Your task to perform on an android device: Clear the shopping cart on target.com. Add "acer nitro" to the cart on target.com, then select checkout. Image 0: 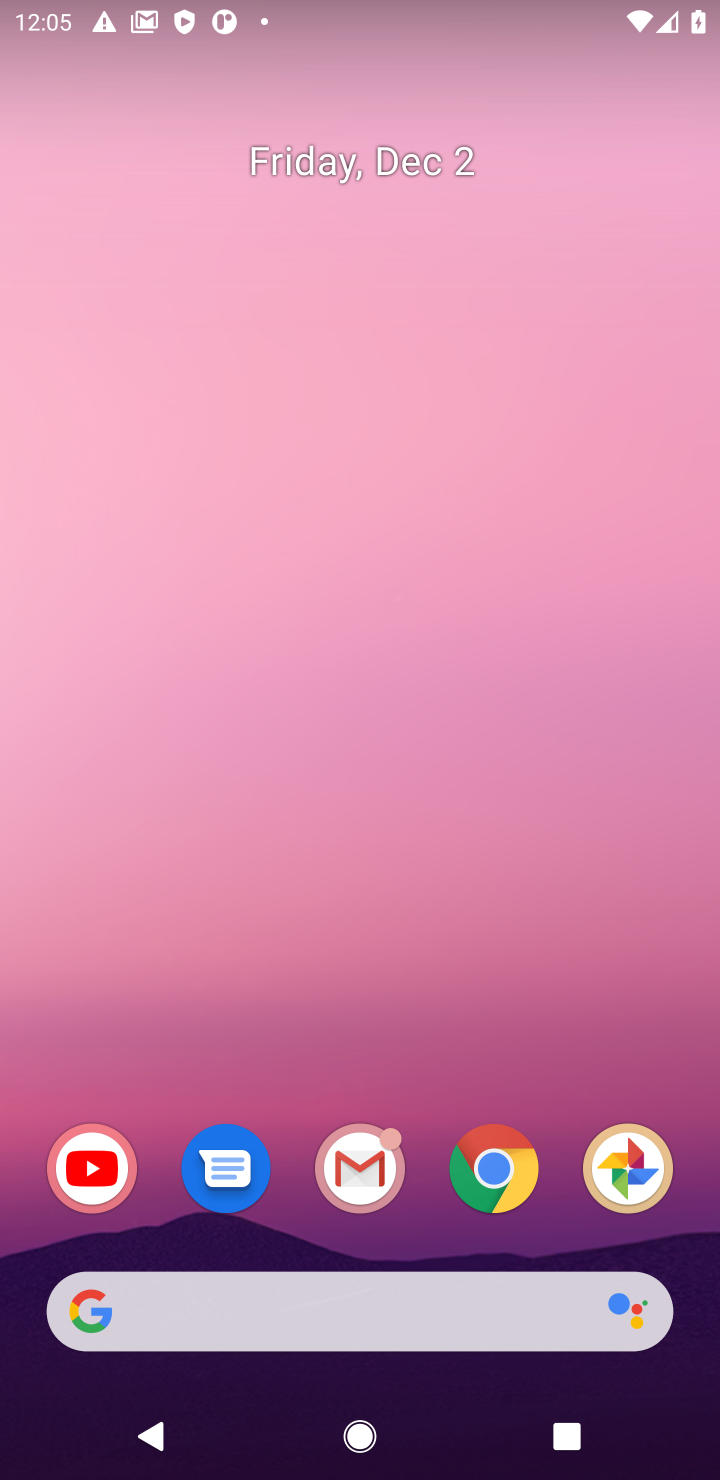
Step 0: click (525, 1176)
Your task to perform on an android device: Clear the shopping cart on target.com. Add "acer nitro" to the cart on target.com, then select checkout. Image 1: 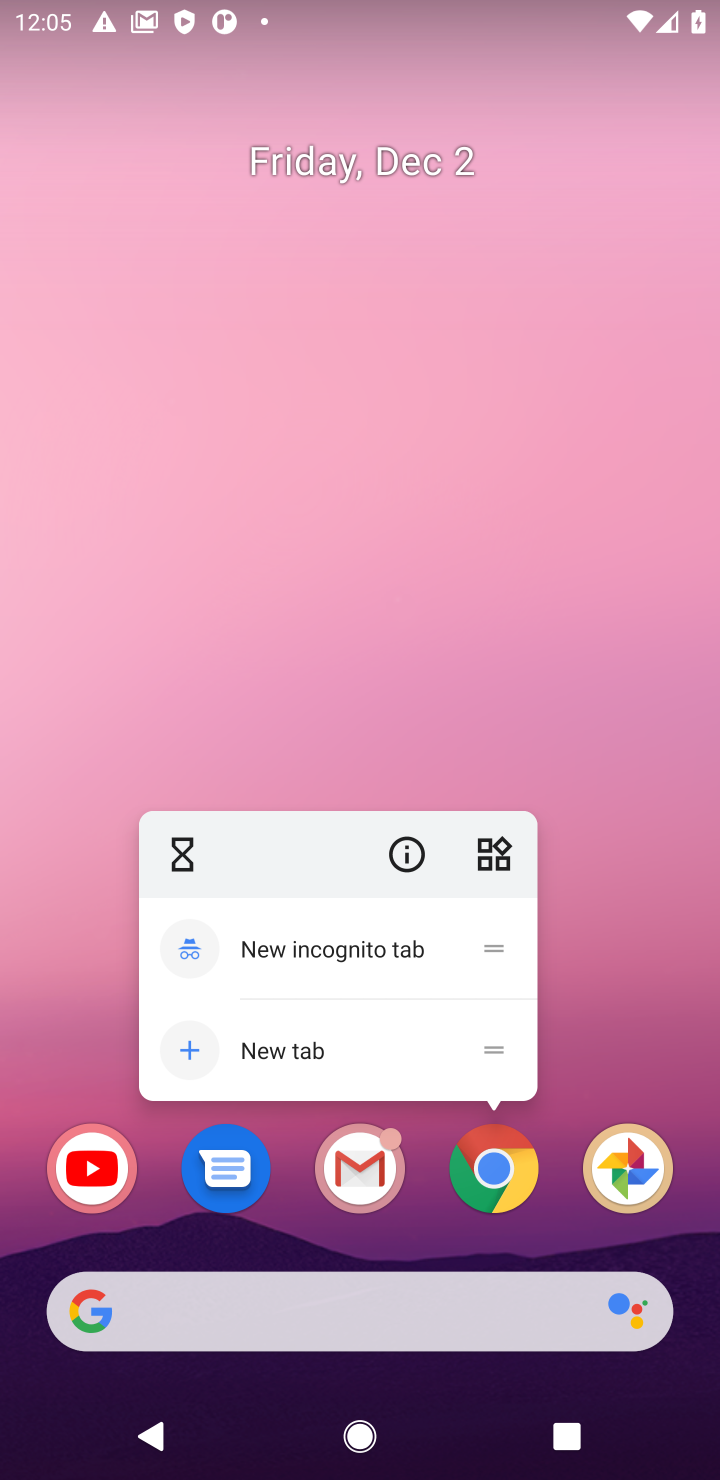
Step 1: click (495, 1169)
Your task to perform on an android device: Clear the shopping cart on target.com. Add "acer nitro" to the cart on target.com, then select checkout. Image 2: 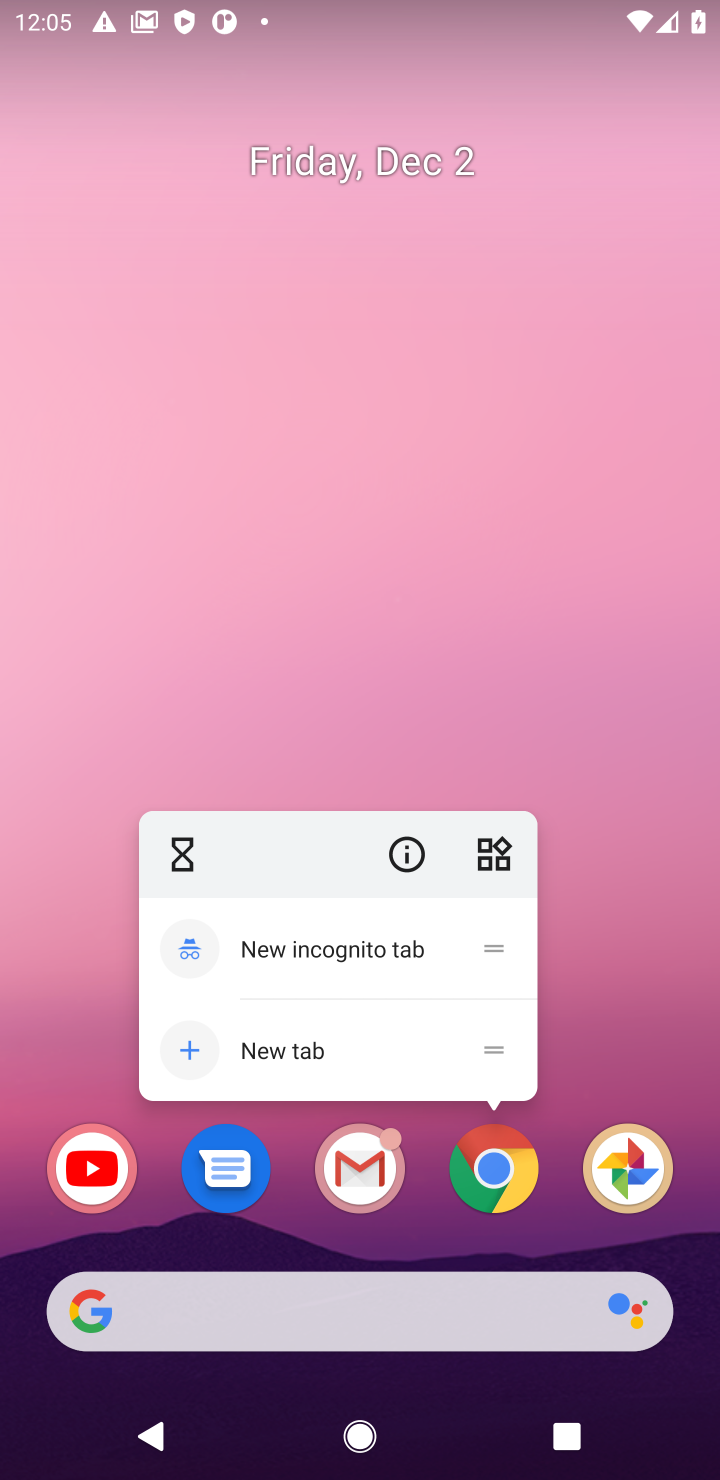
Step 2: click (495, 1169)
Your task to perform on an android device: Clear the shopping cart on target.com. Add "acer nitro" to the cart on target.com, then select checkout. Image 3: 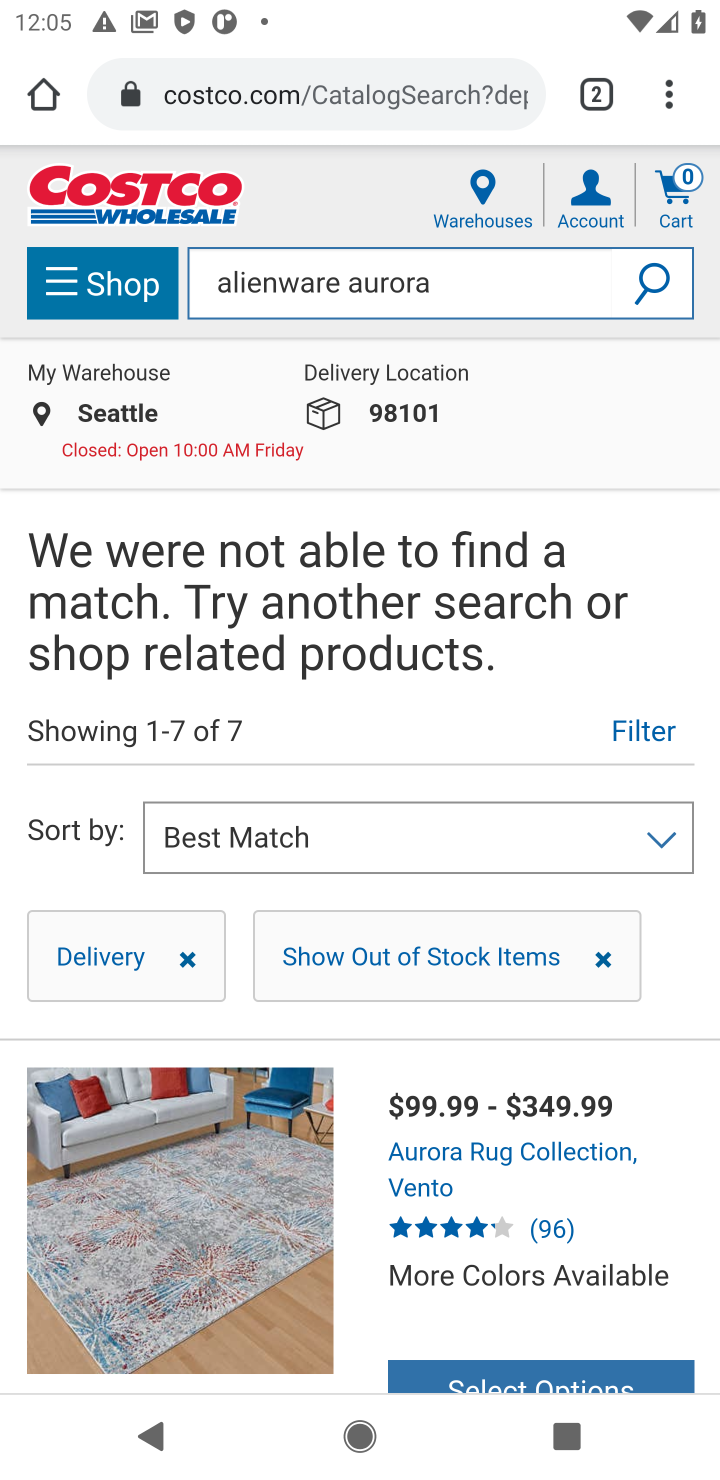
Step 3: click (333, 87)
Your task to perform on an android device: Clear the shopping cart on target.com. Add "acer nitro" to the cart on target.com, then select checkout. Image 4: 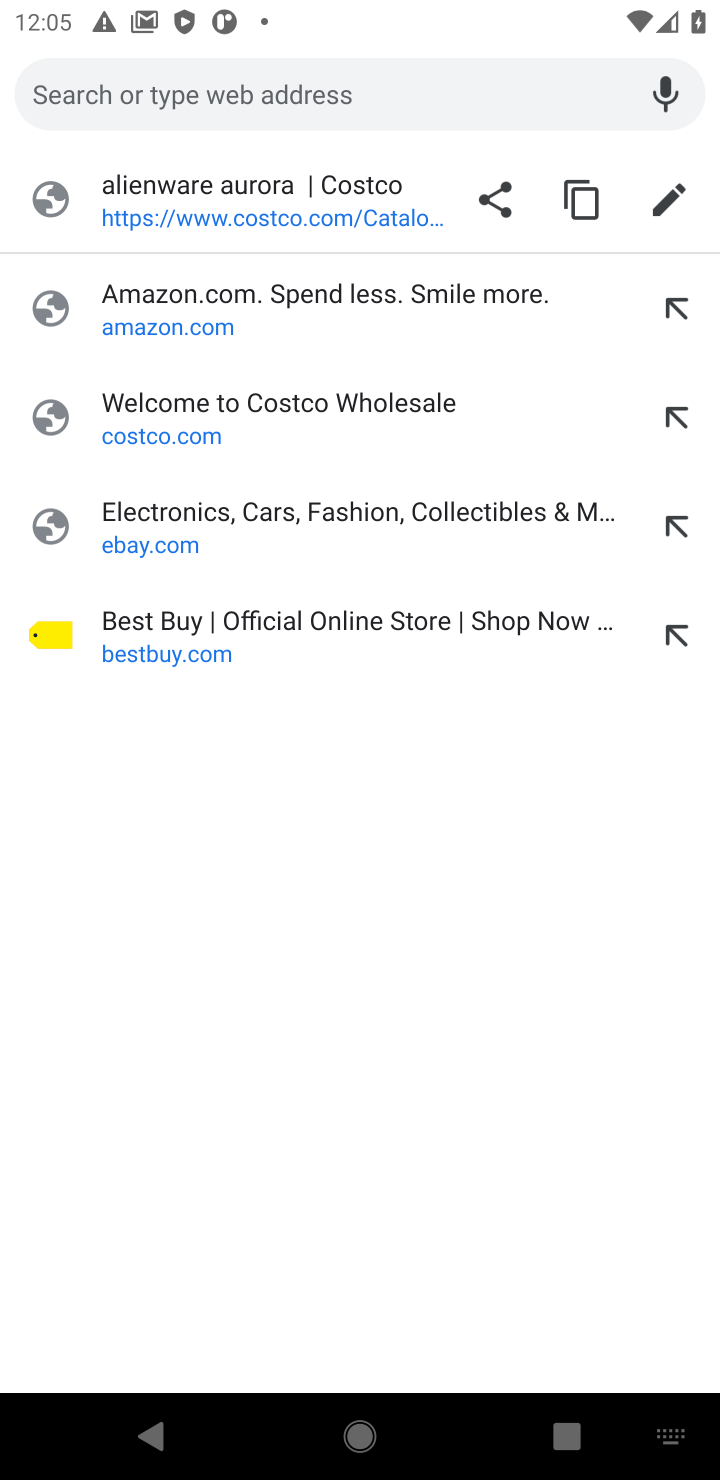
Step 4: type "target.com"
Your task to perform on an android device: Clear the shopping cart on target.com. Add "acer nitro" to the cart on target.com, then select checkout. Image 5: 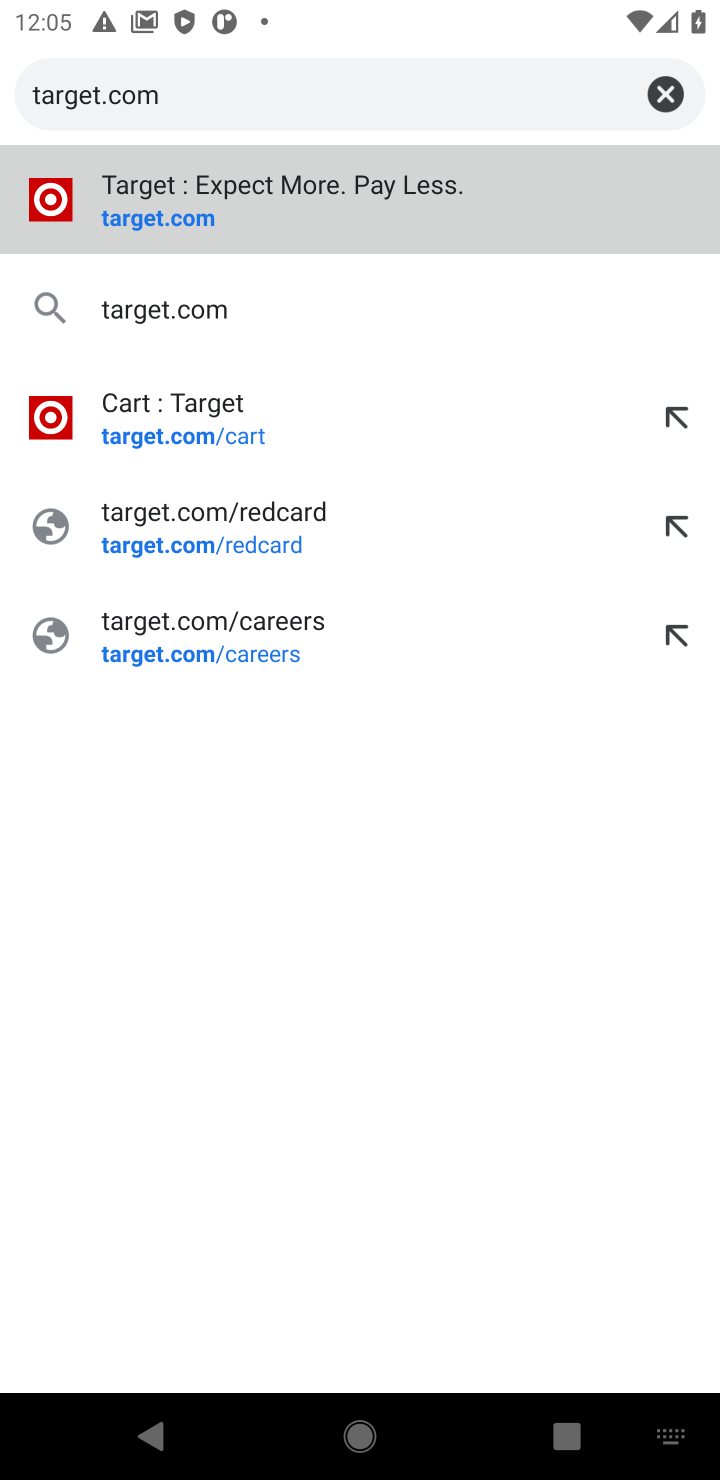
Step 5: click (151, 231)
Your task to perform on an android device: Clear the shopping cart on target.com. Add "acer nitro" to the cart on target.com, then select checkout. Image 6: 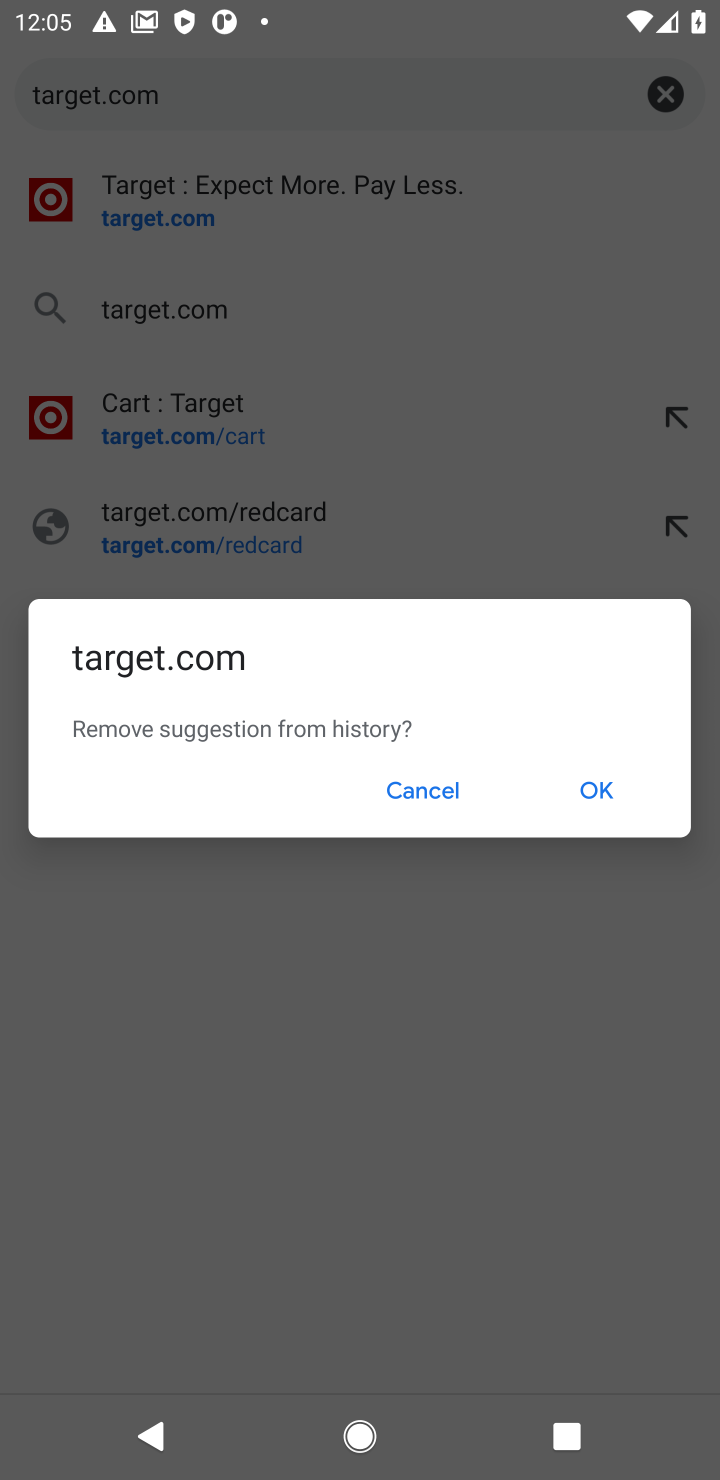
Step 6: click (401, 795)
Your task to perform on an android device: Clear the shopping cart on target.com. Add "acer nitro" to the cart on target.com, then select checkout. Image 7: 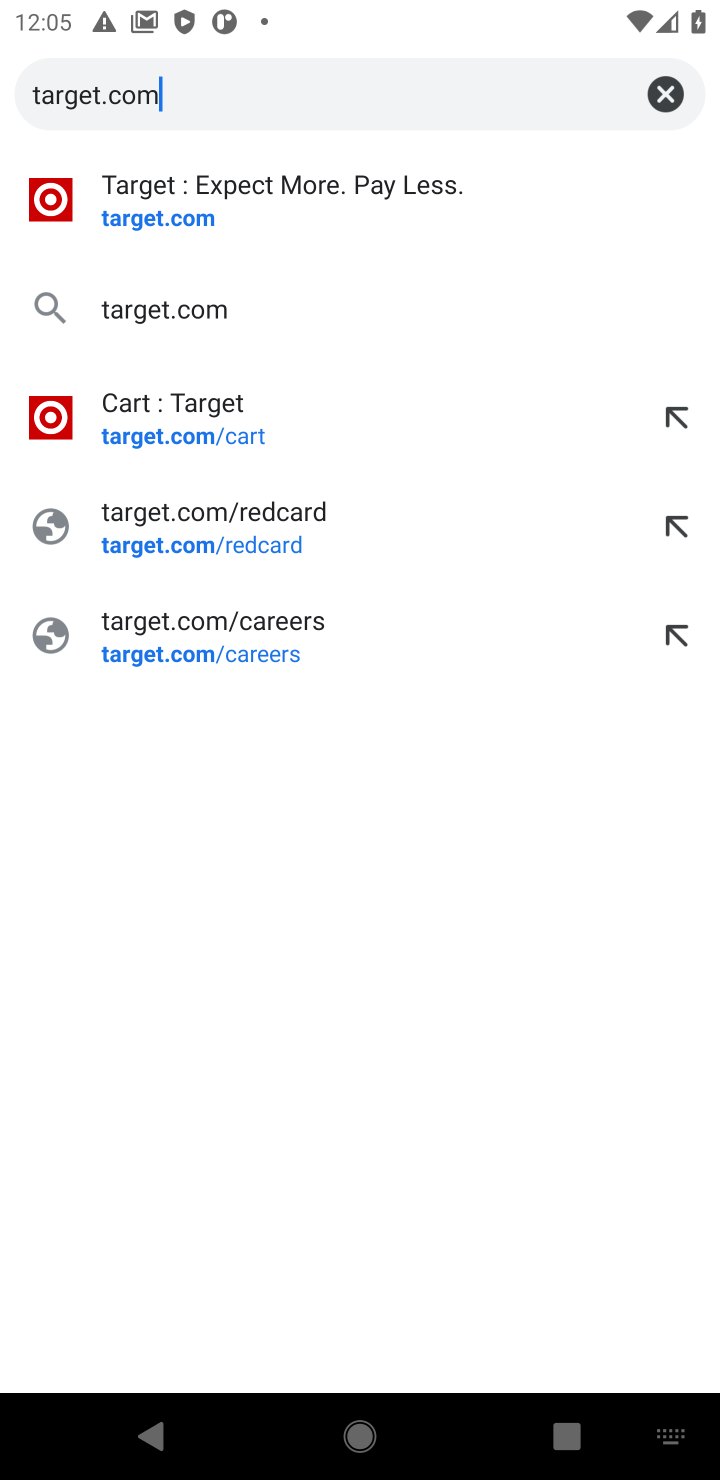
Step 7: click (171, 227)
Your task to perform on an android device: Clear the shopping cart on target.com. Add "acer nitro" to the cart on target.com, then select checkout. Image 8: 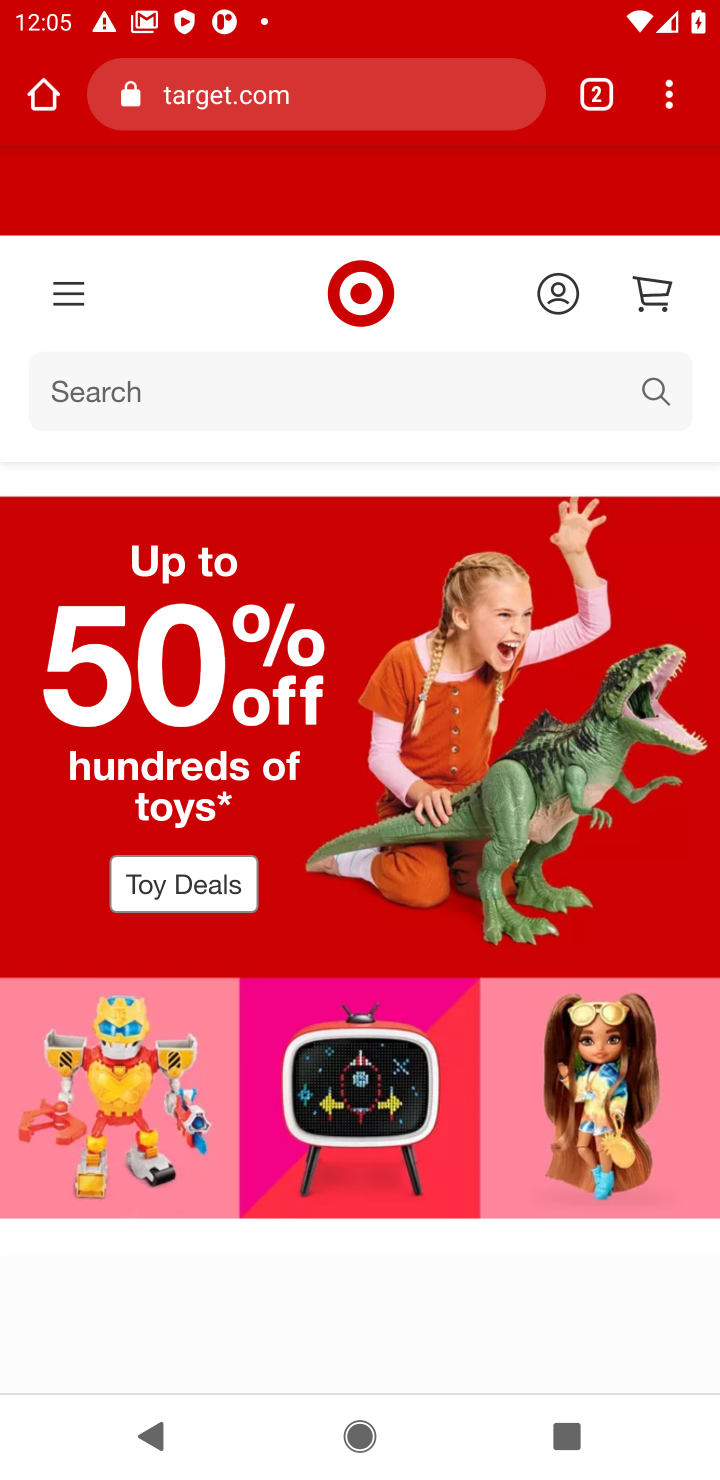
Step 8: click (654, 297)
Your task to perform on an android device: Clear the shopping cart on target.com. Add "acer nitro" to the cart on target.com, then select checkout. Image 9: 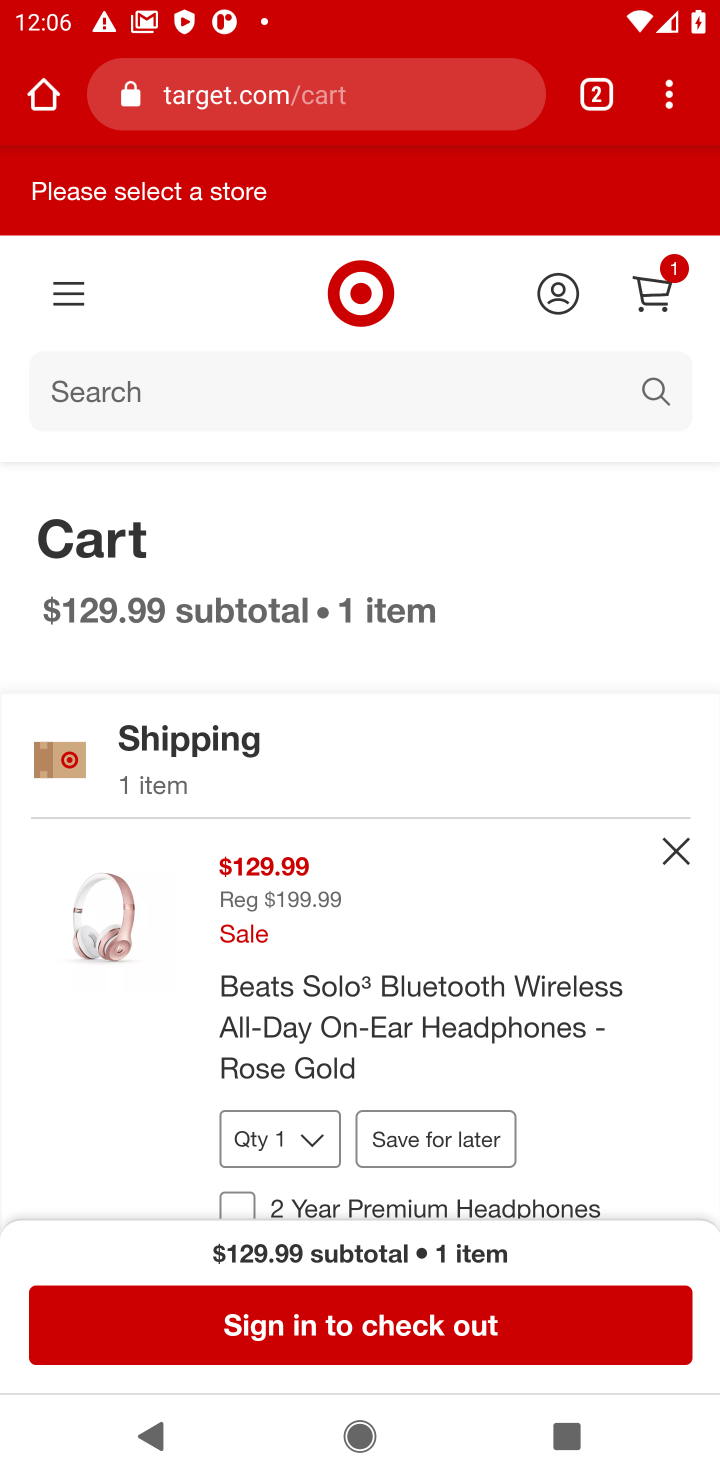
Step 9: click (681, 860)
Your task to perform on an android device: Clear the shopping cart on target.com. Add "acer nitro" to the cart on target.com, then select checkout. Image 10: 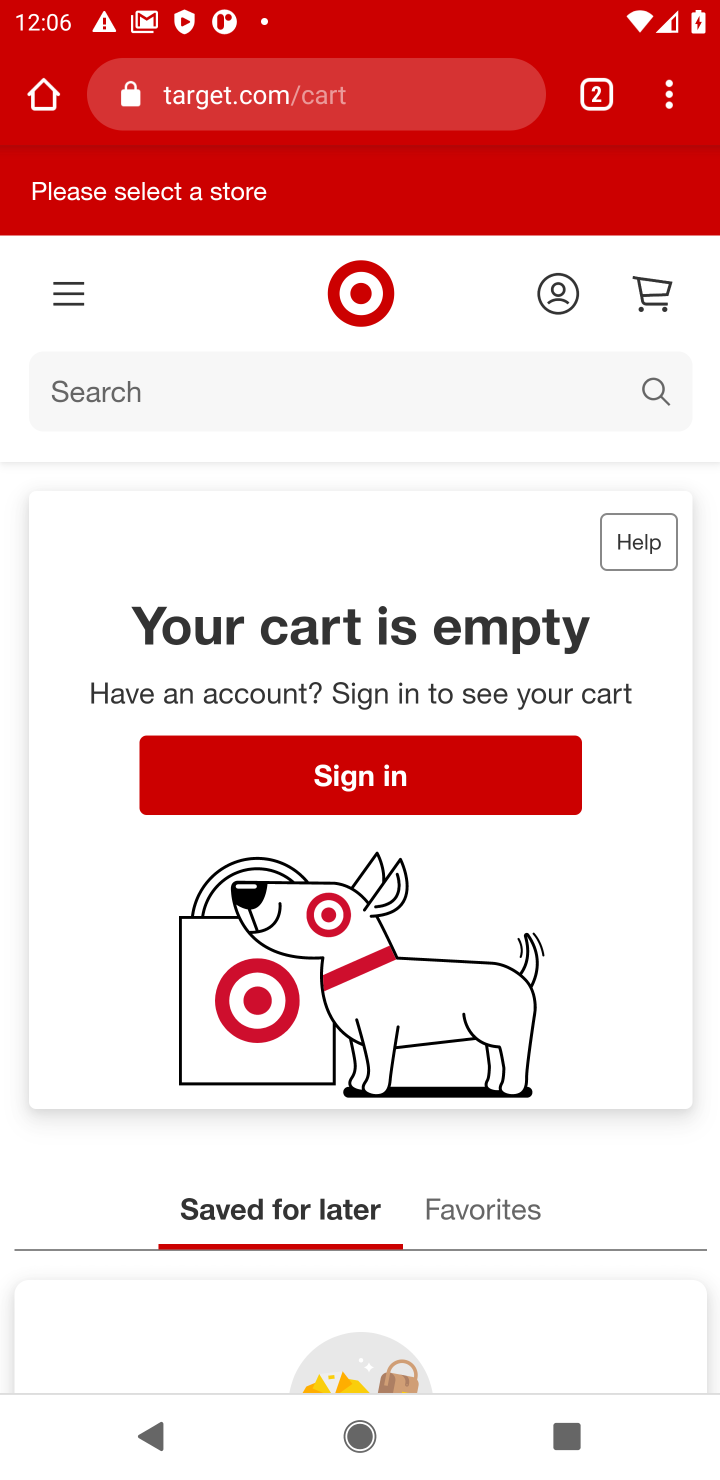
Step 10: click (86, 394)
Your task to perform on an android device: Clear the shopping cart on target.com. Add "acer nitro" to the cart on target.com, then select checkout. Image 11: 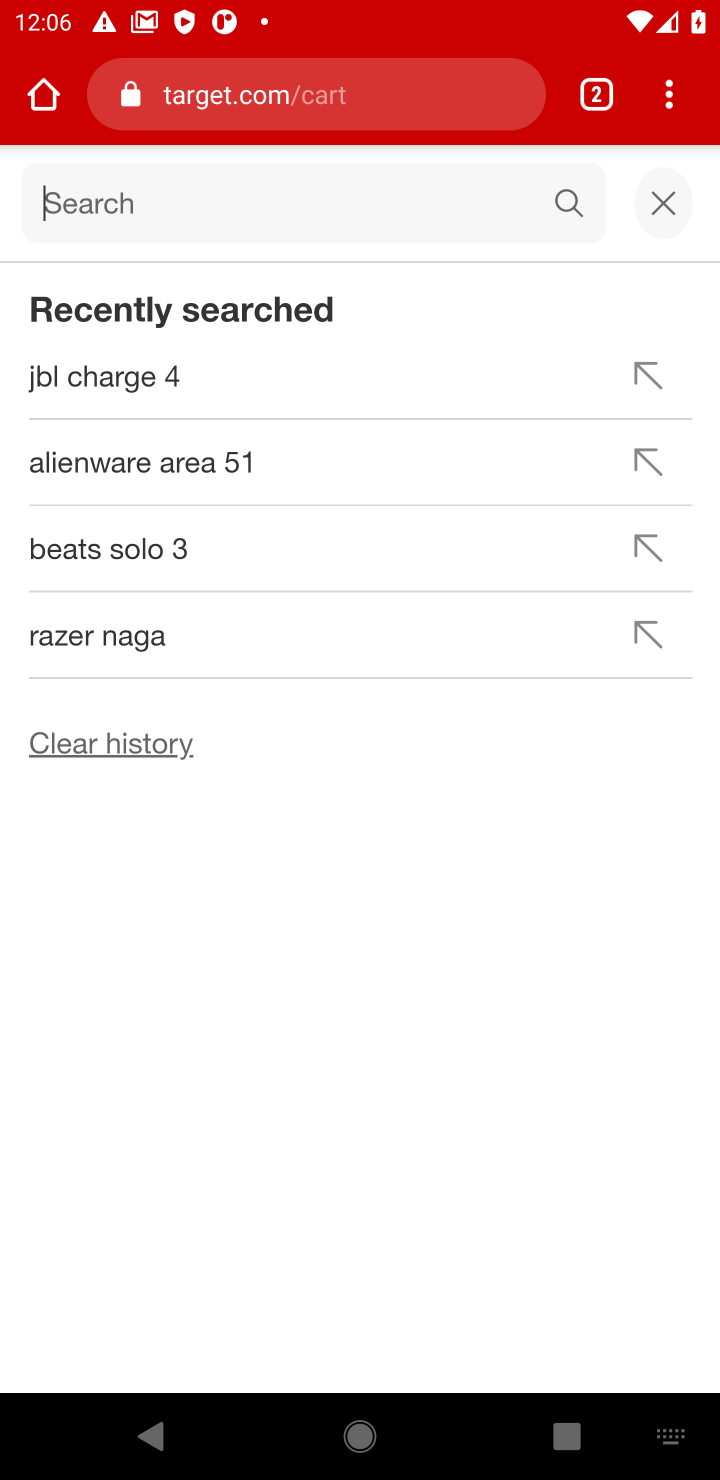
Step 11: type "acer nitro"
Your task to perform on an android device: Clear the shopping cart on target.com. Add "acer nitro" to the cart on target.com, then select checkout. Image 12: 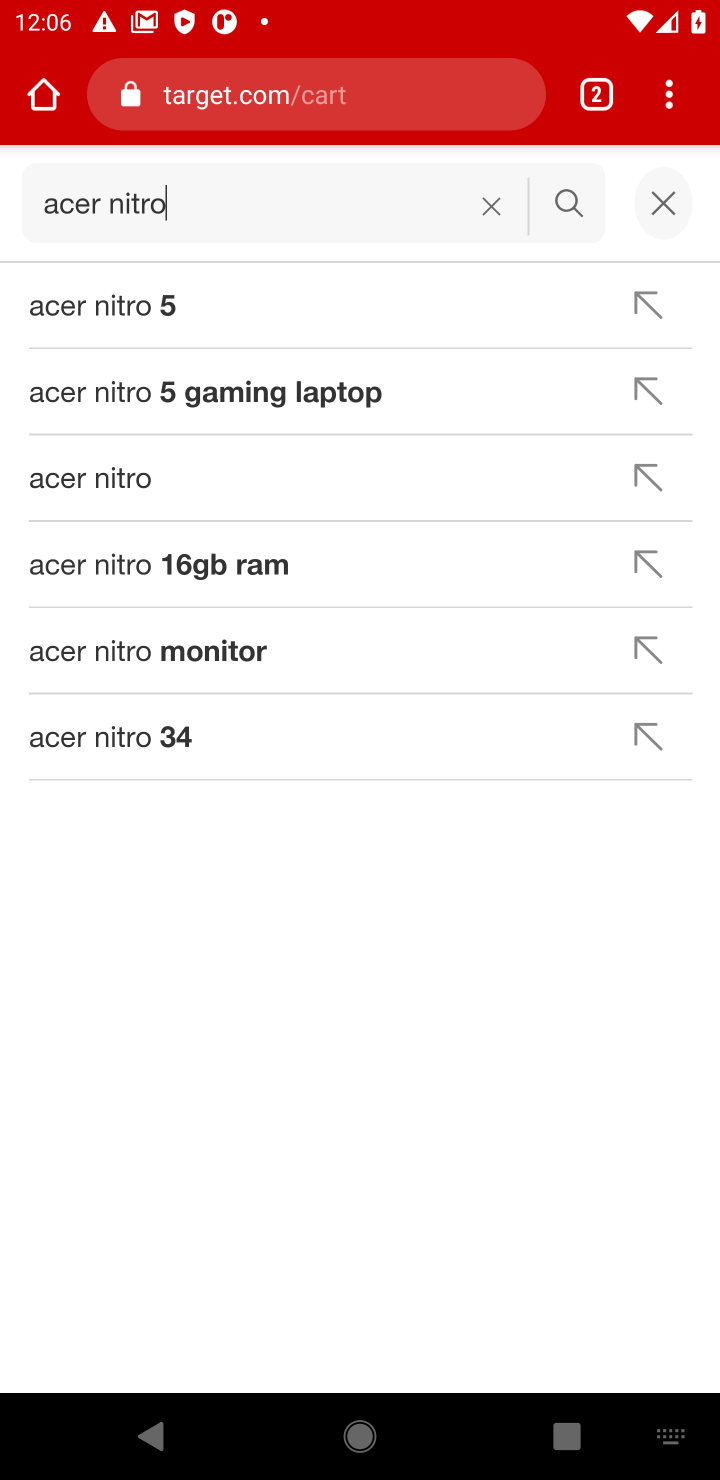
Step 12: click (125, 485)
Your task to perform on an android device: Clear the shopping cart on target.com. Add "acer nitro" to the cart on target.com, then select checkout. Image 13: 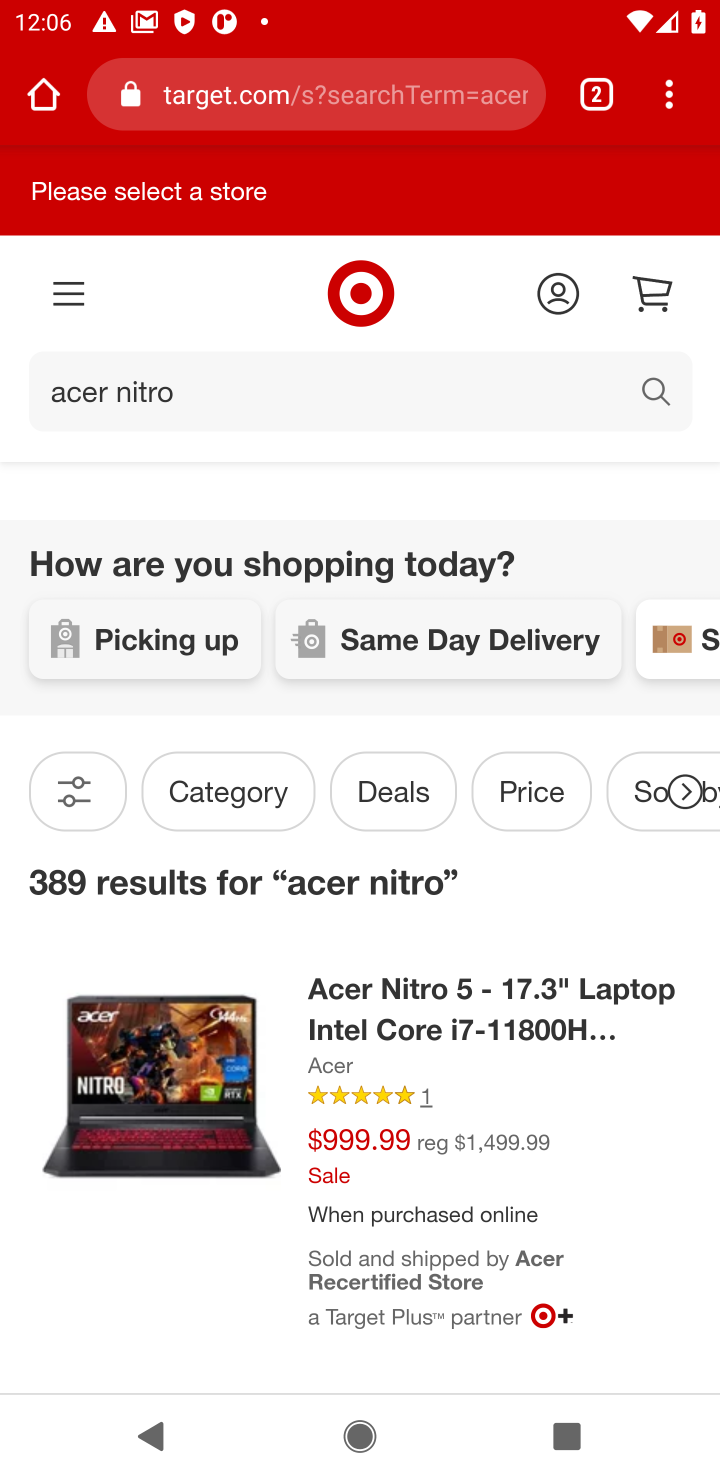
Step 13: drag from (561, 1126) to (565, 789)
Your task to perform on an android device: Clear the shopping cart on target.com. Add "acer nitro" to the cart on target.com, then select checkout. Image 14: 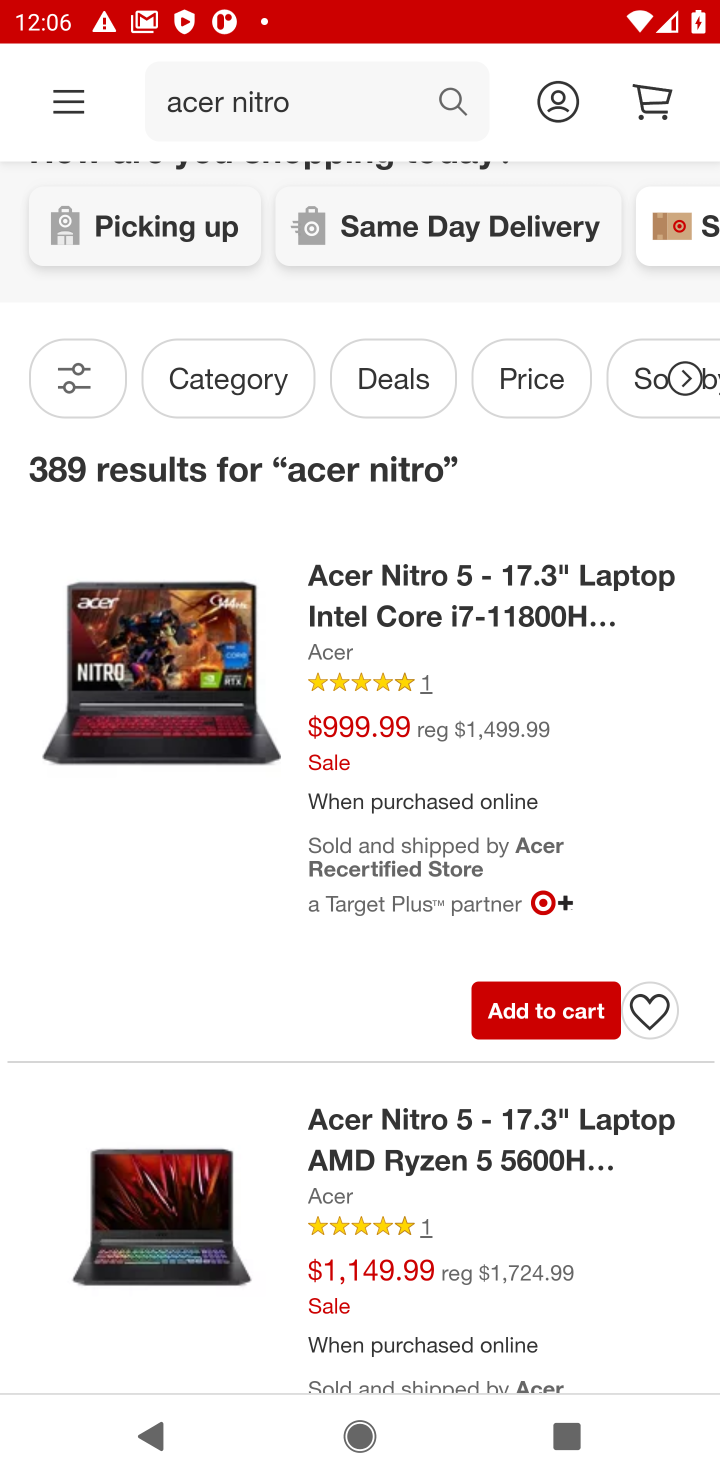
Step 14: click (534, 1009)
Your task to perform on an android device: Clear the shopping cart on target.com. Add "acer nitro" to the cart on target.com, then select checkout. Image 15: 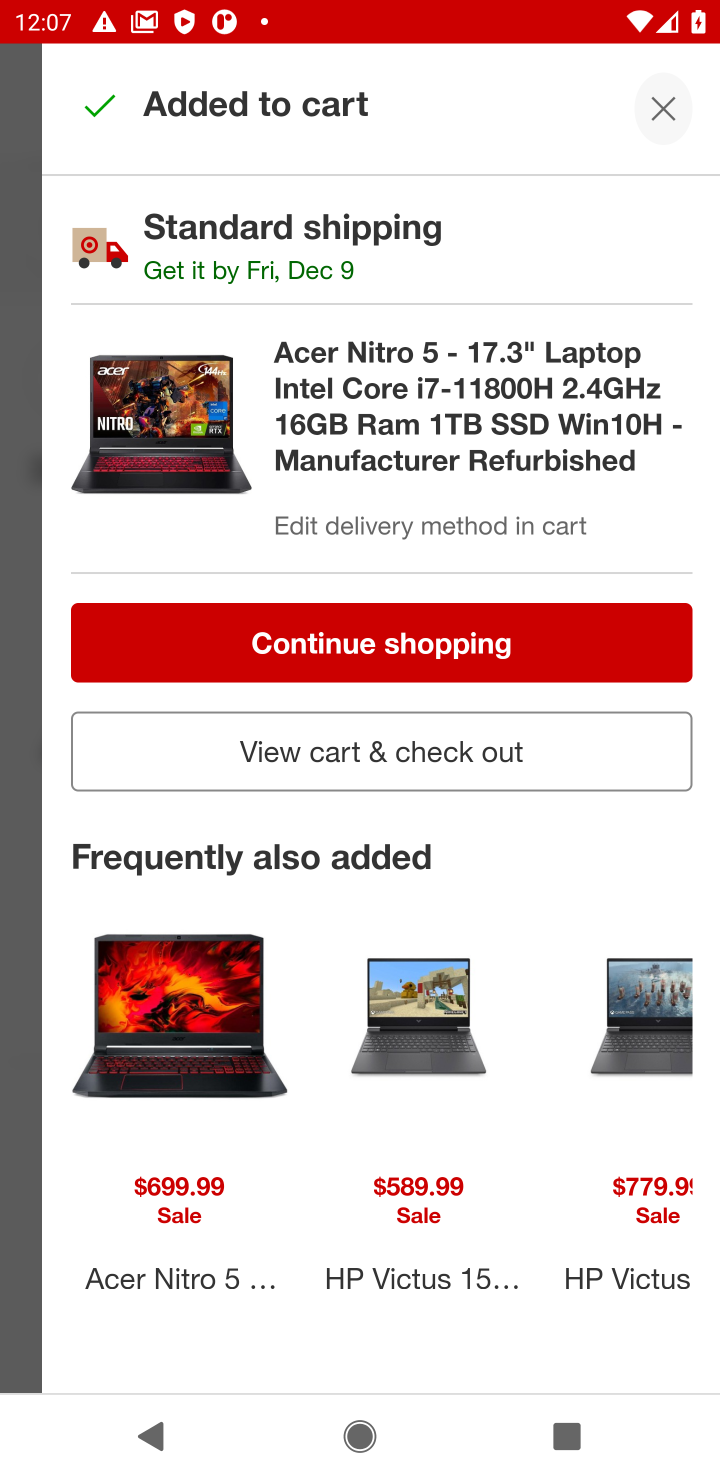
Step 15: click (328, 753)
Your task to perform on an android device: Clear the shopping cart on target.com. Add "acer nitro" to the cart on target.com, then select checkout. Image 16: 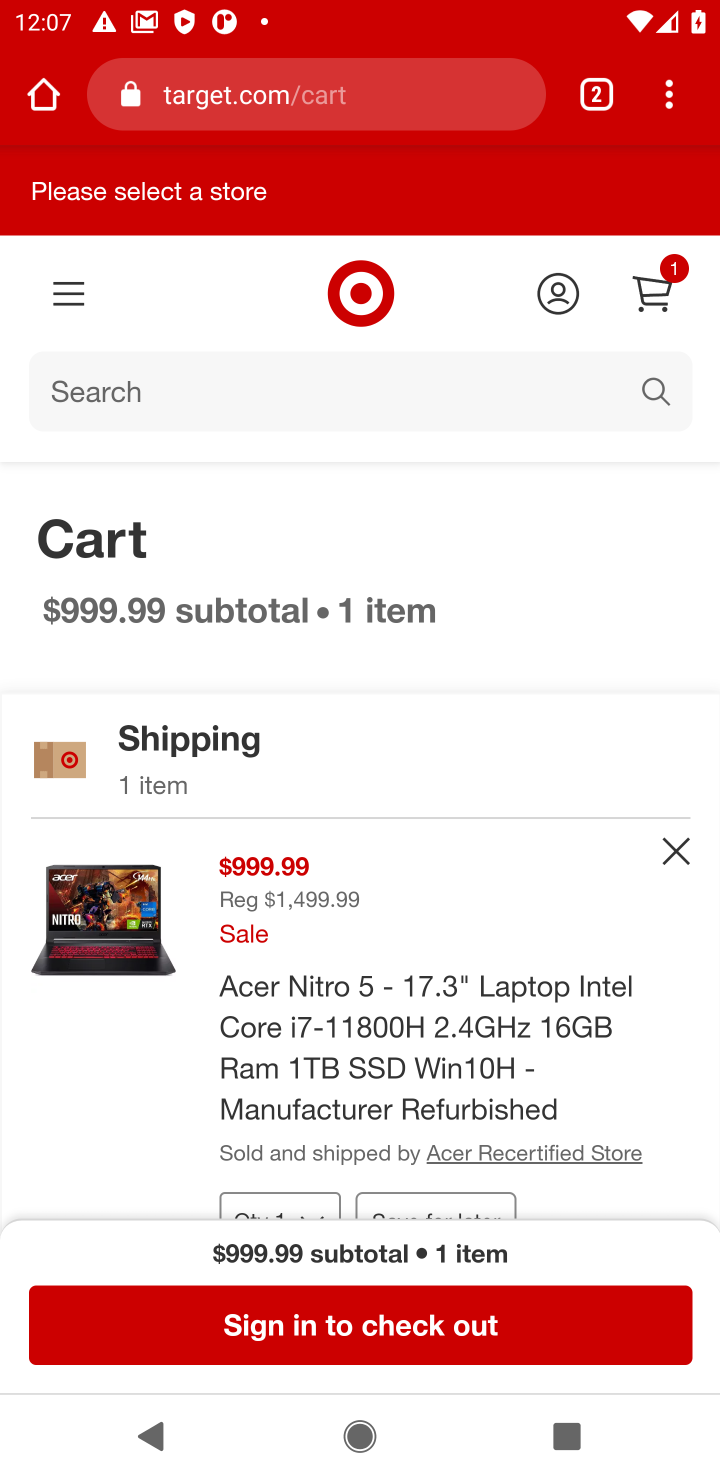
Step 16: click (278, 1308)
Your task to perform on an android device: Clear the shopping cart on target.com. Add "acer nitro" to the cart on target.com, then select checkout. Image 17: 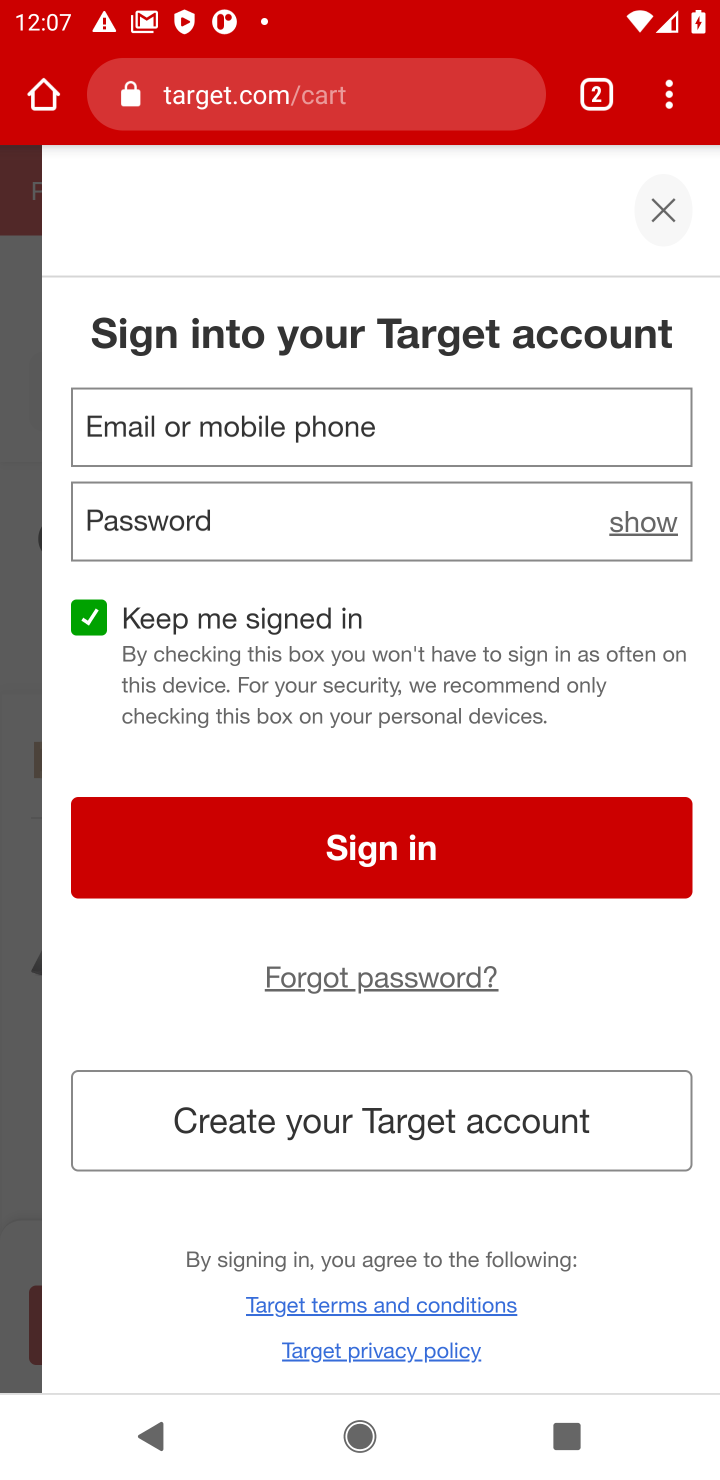
Step 17: task complete